Your task to perform on an android device: What's the weather going to be this weekend? Image 0: 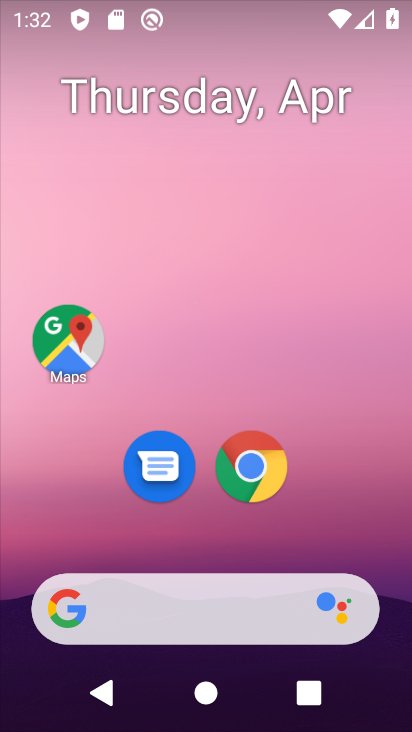
Step 0: drag from (367, 536) to (247, 42)
Your task to perform on an android device: What's the weather going to be this weekend? Image 1: 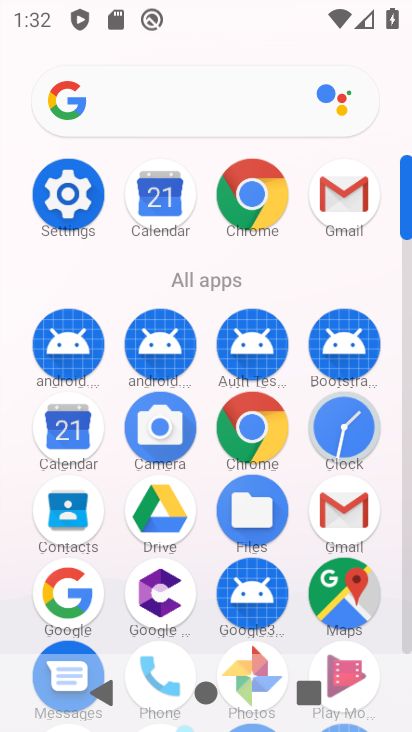
Step 1: drag from (22, 607) to (18, 284)
Your task to perform on an android device: What's the weather going to be this weekend? Image 2: 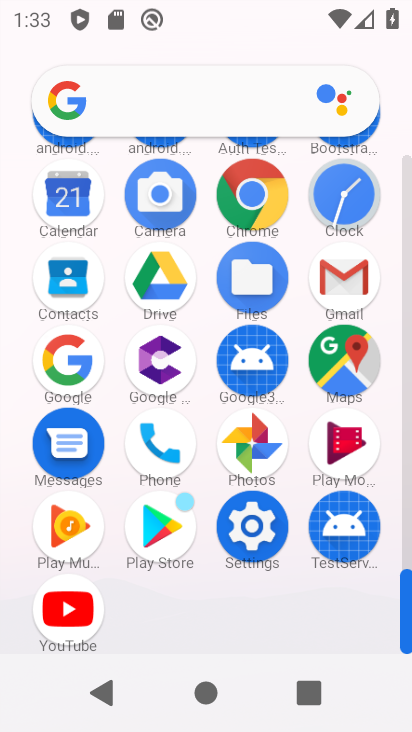
Step 2: drag from (8, 546) to (10, 265)
Your task to perform on an android device: What's the weather going to be this weekend? Image 3: 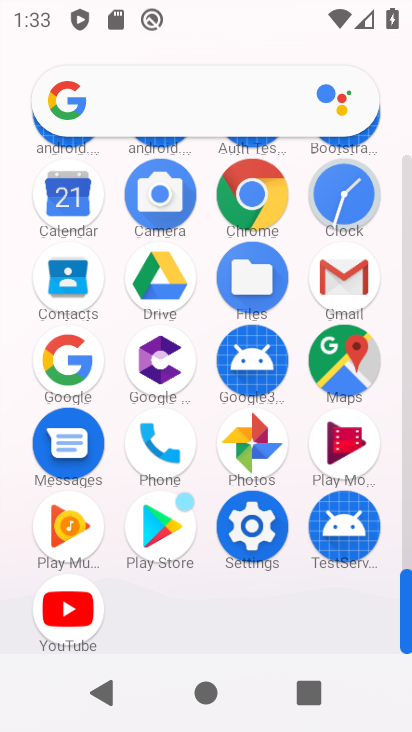
Step 3: drag from (12, 504) to (10, 246)
Your task to perform on an android device: What's the weather going to be this weekend? Image 4: 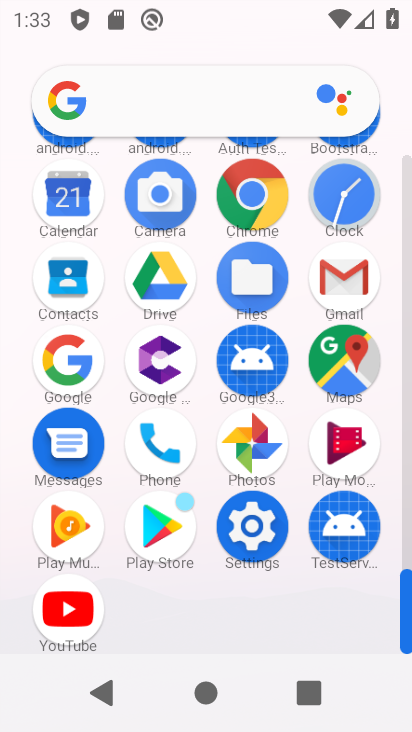
Step 4: drag from (12, 204) to (13, 545)
Your task to perform on an android device: What's the weather going to be this weekend? Image 5: 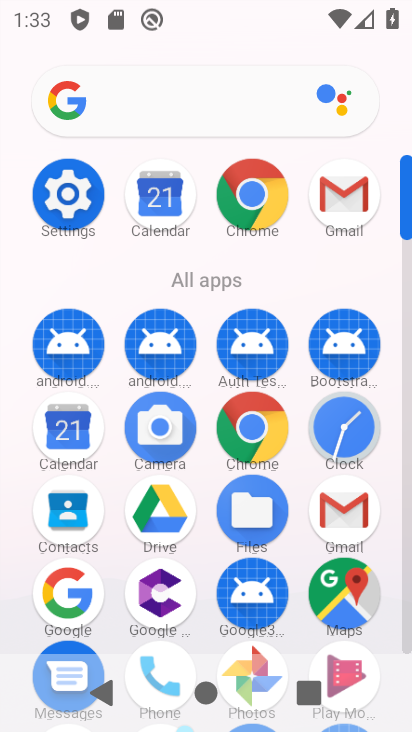
Step 5: click (137, 98)
Your task to perform on an android device: What's the weather going to be this weekend? Image 6: 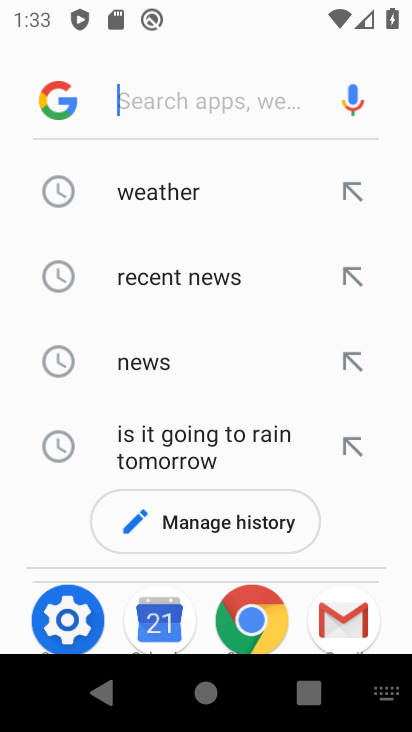
Step 6: click (162, 194)
Your task to perform on an android device: What's the weather going to be this weekend? Image 7: 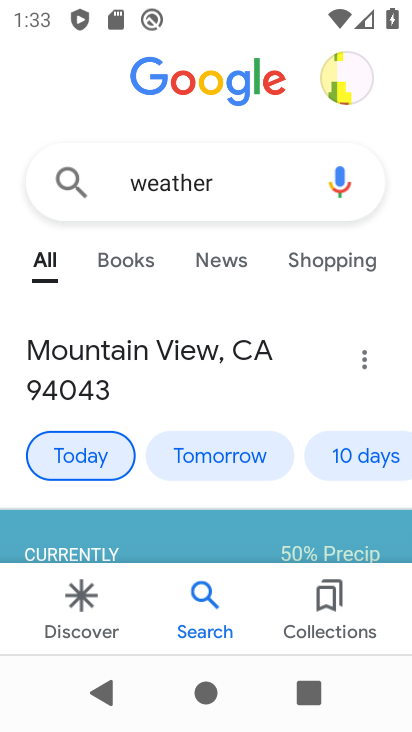
Step 7: click (356, 459)
Your task to perform on an android device: What's the weather going to be this weekend? Image 8: 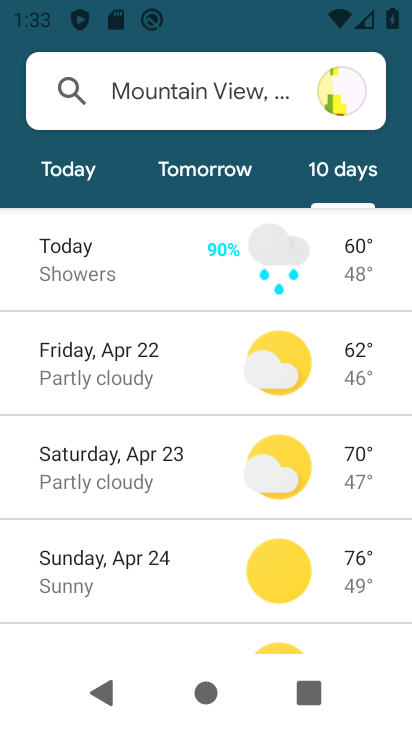
Step 8: task complete